Your task to perform on an android device: set an alarm Image 0: 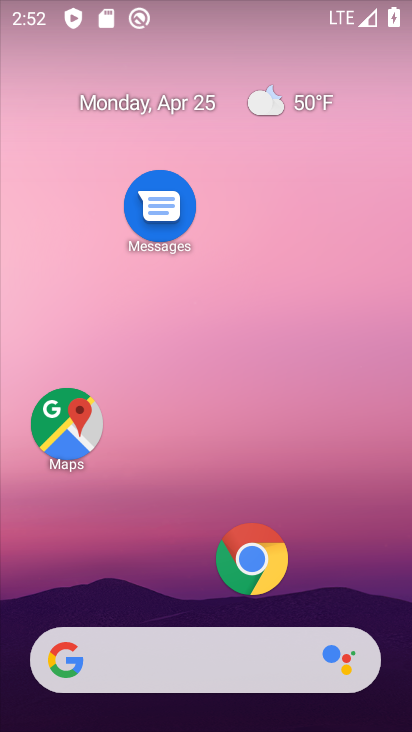
Step 0: drag from (149, 589) to (220, 16)
Your task to perform on an android device: set an alarm Image 1: 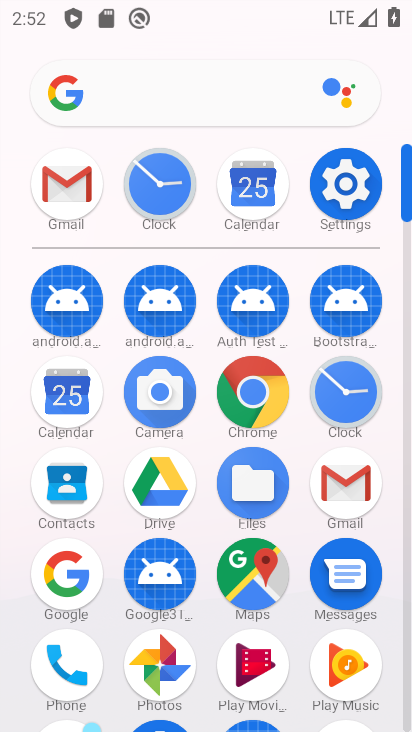
Step 1: click (340, 397)
Your task to perform on an android device: set an alarm Image 2: 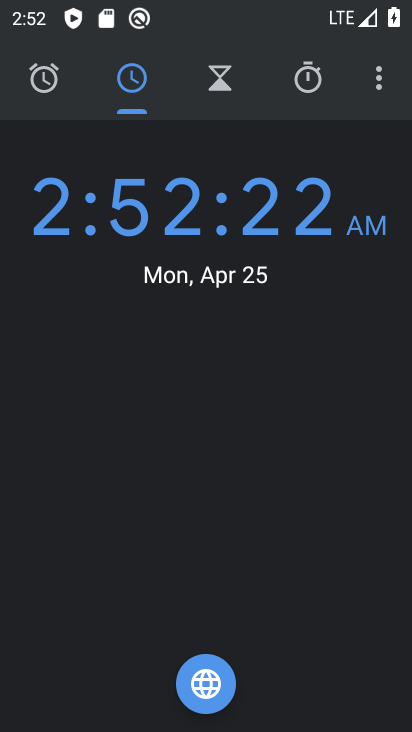
Step 2: click (60, 93)
Your task to perform on an android device: set an alarm Image 3: 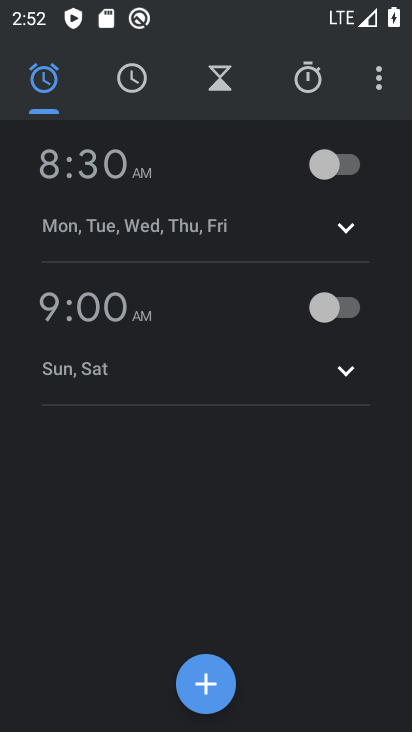
Step 3: click (347, 318)
Your task to perform on an android device: set an alarm Image 4: 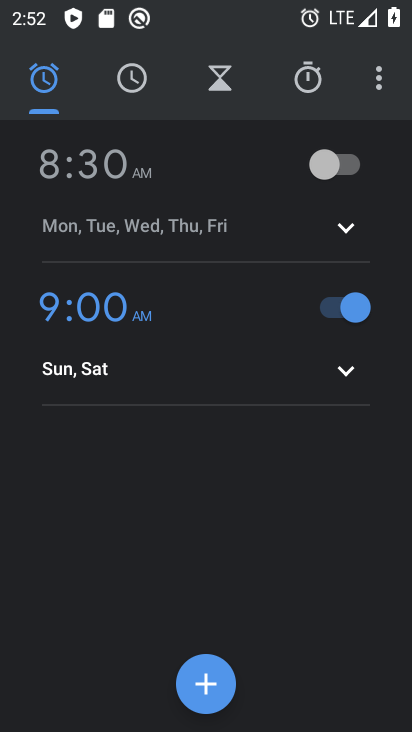
Step 4: click (342, 376)
Your task to perform on an android device: set an alarm Image 5: 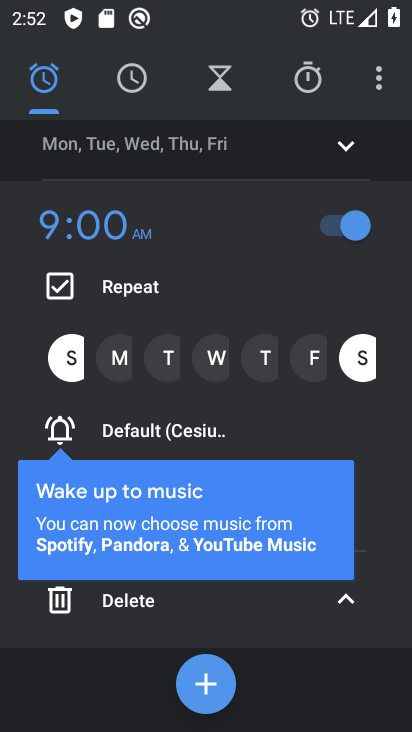
Step 5: click (117, 361)
Your task to perform on an android device: set an alarm Image 6: 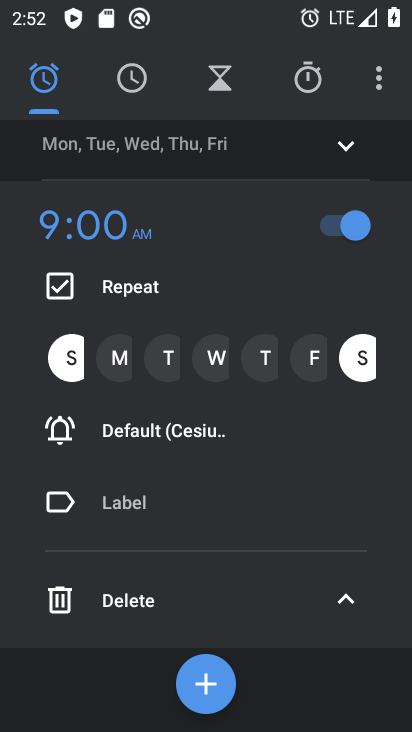
Step 6: click (214, 362)
Your task to perform on an android device: set an alarm Image 7: 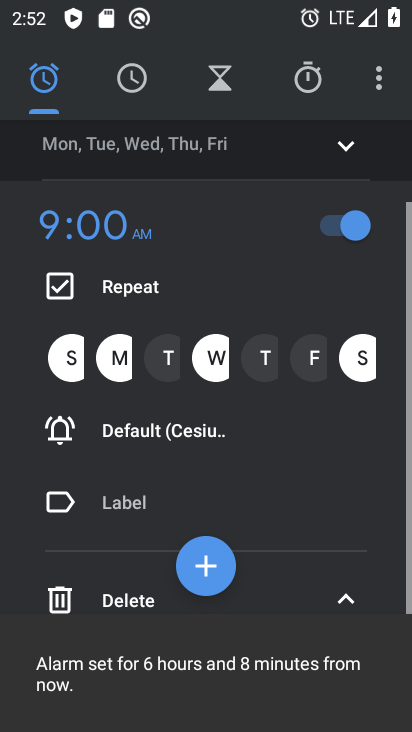
Step 7: click (273, 370)
Your task to perform on an android device: set an alarm Image 8: 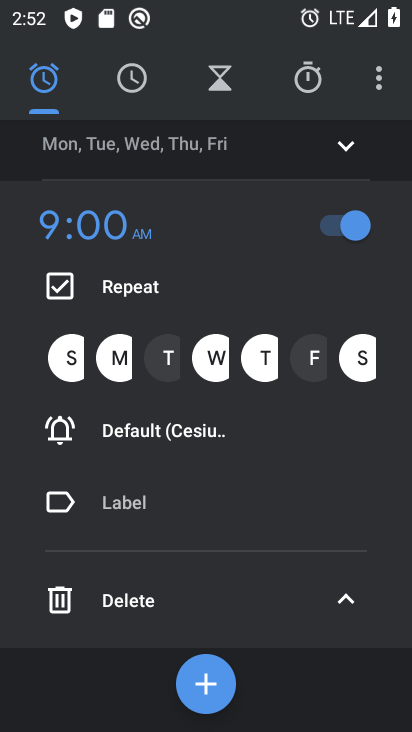
Step 8: drag from (106, 522) to (148, 337)
Your task to perform on an android device: set an alarm Image 9: 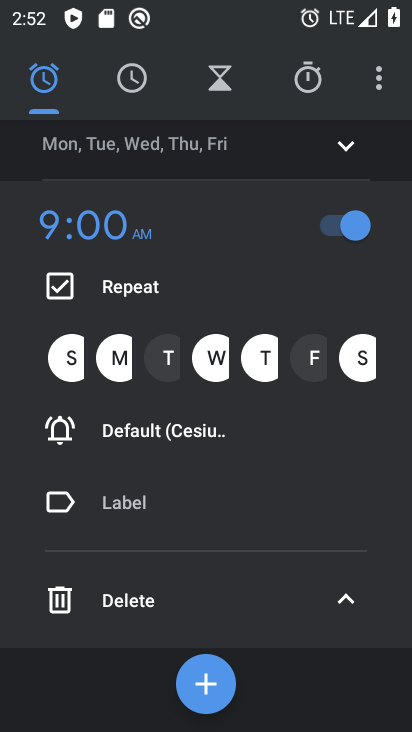
Step 9: click (327, 598)
Your task to perform on an android device: set an alarm Image 10: 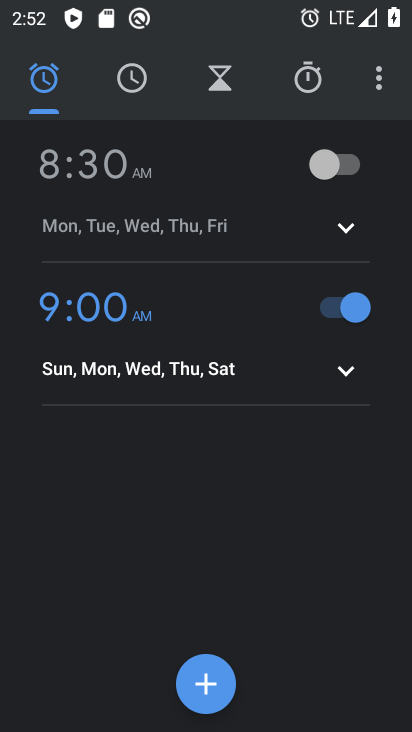
Step 10: task complete